Your task to perform on an android device: Open the calendar and show me this week's events? Image 0: 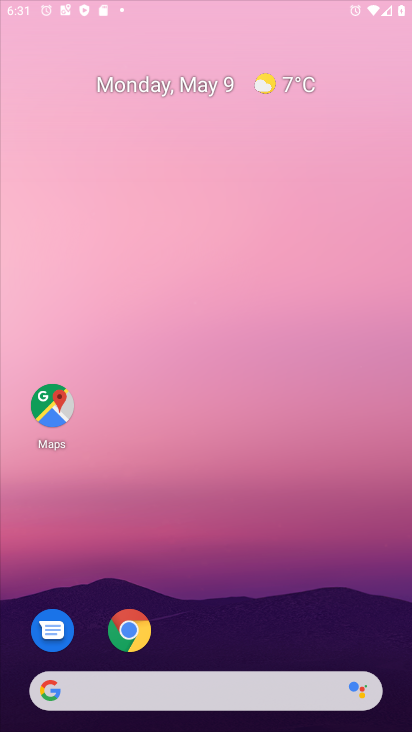
Step 0: drag from (195, 136) to (235, 140)
Your task to perform on an android device: Open the calendar and show me this week's events? Image 1: 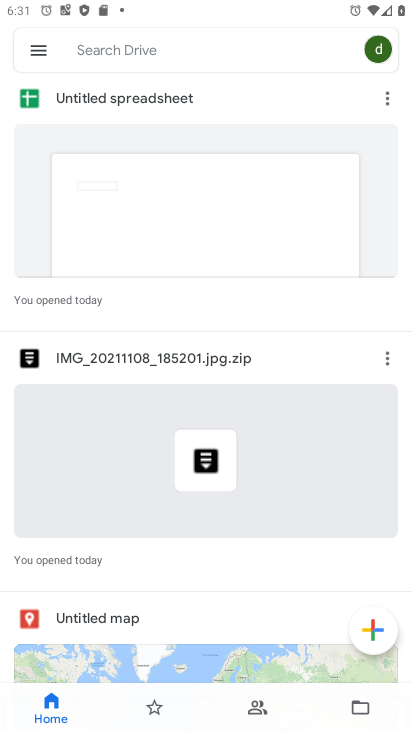
Step 1: press home button
Your task to perform on an android device: Open the calendar and show me this week's events? Image 2: 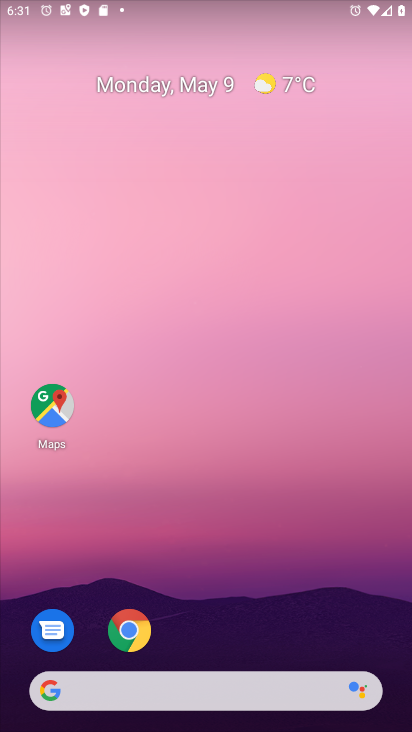
Step 2: drag from (234, 613) to (202, 174)
Your task to perform on an android device: Open the calendar and show me this week's events? Image 3: 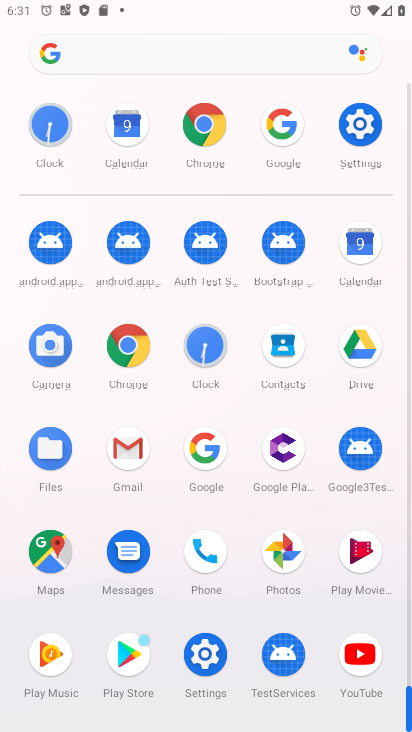
Step 3: click (368, 254)
Your task to perform on an android device: Open the calendar and show me this week's events? Image 4: 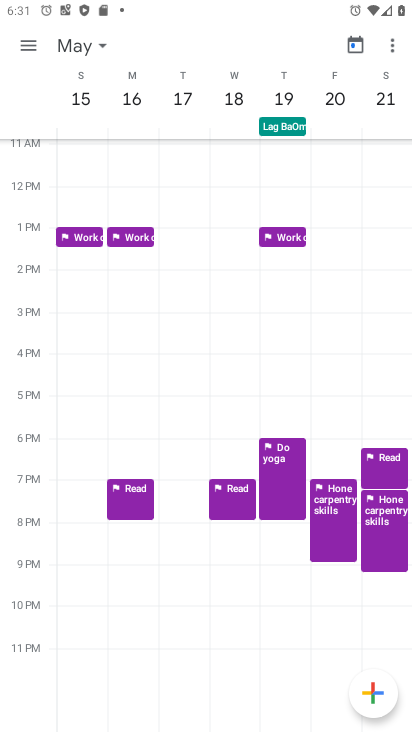
Step 4: click (92, 44)
Your task to perform on an android device: Open the calendar and show me this week's events? Image 5: 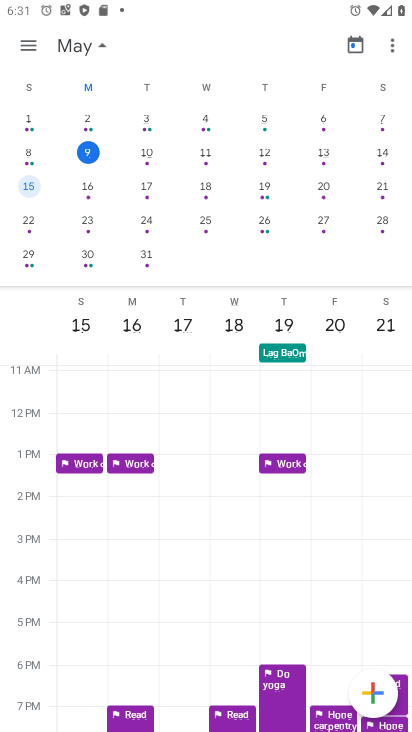
Step 5: click (28, 159)
Your task to perform on an android device: Open the calendar and show me this week's events? Image 6: 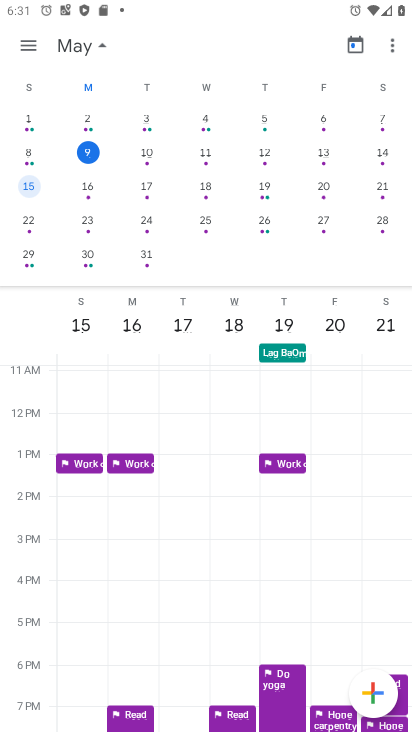
Step 6: click (29, 159)
Your task to perform on an android device: Open the calendar and show me this week's events? Image 7: 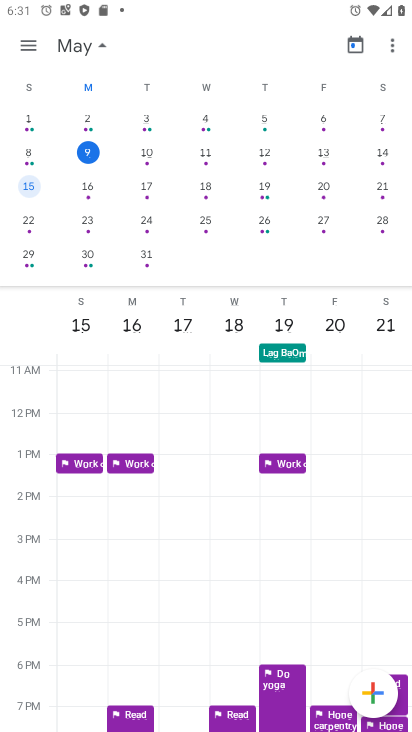
Step 7: click (28, 160)
Your task to perform on an android device: Open the calendar and show me this week's events? Image 8: 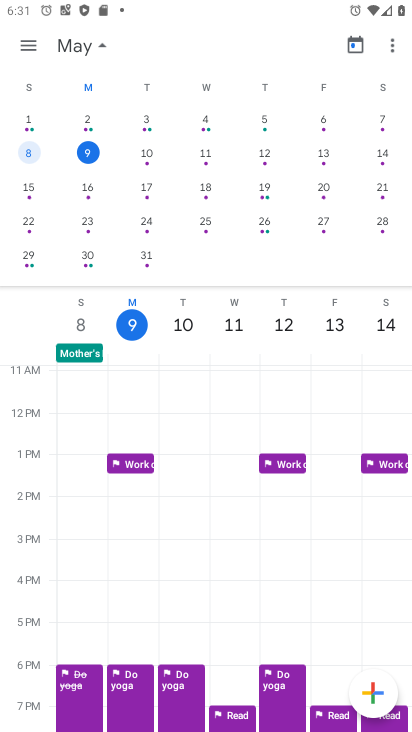
Step 8: task complete